Your task to perform on an android device: create a new album in the google photos Image 0: 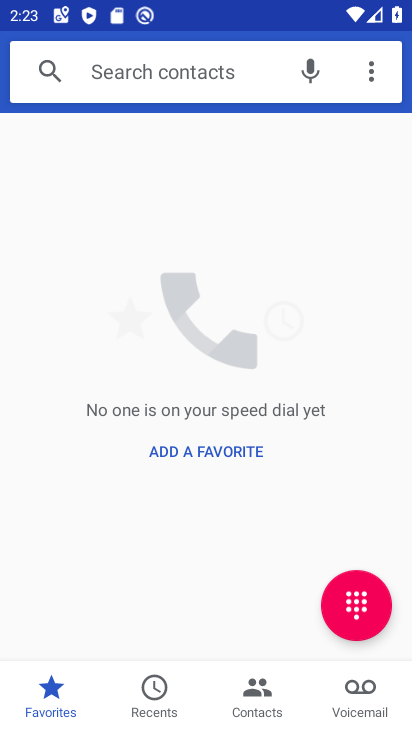
Step 0: press home button
Your task to perform on an android device: create a new album in the google photos Image 1: 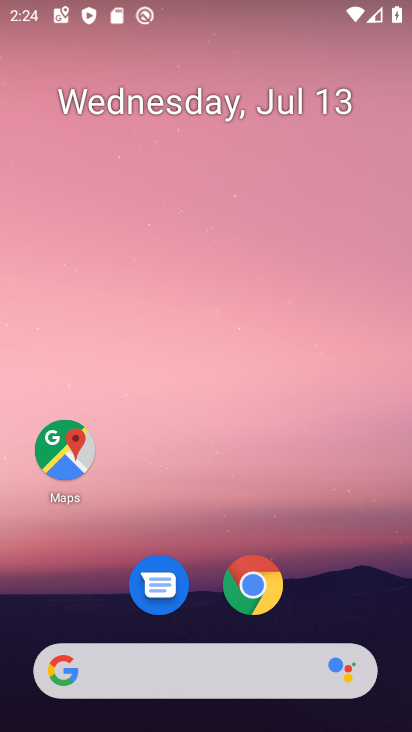
Step 1: drag from (115, 686) to (277, 124)
Your task to perform on an android device: create a new album in the google photos Image 2: 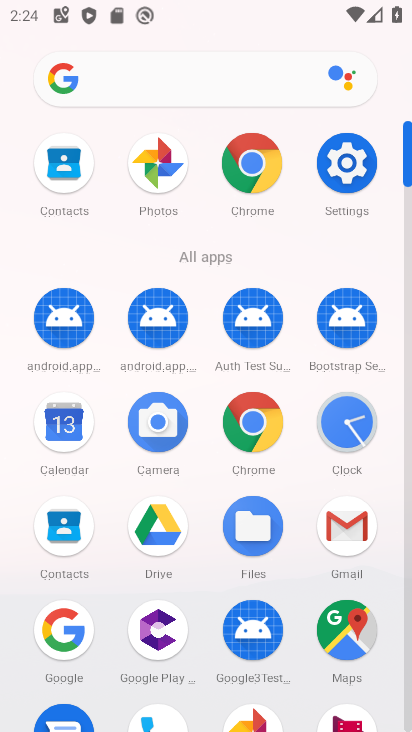
Step 2: drag from (208, 661) to (326, 141)
Your task to perform on an android device: create a new album in the google photos Image 3: 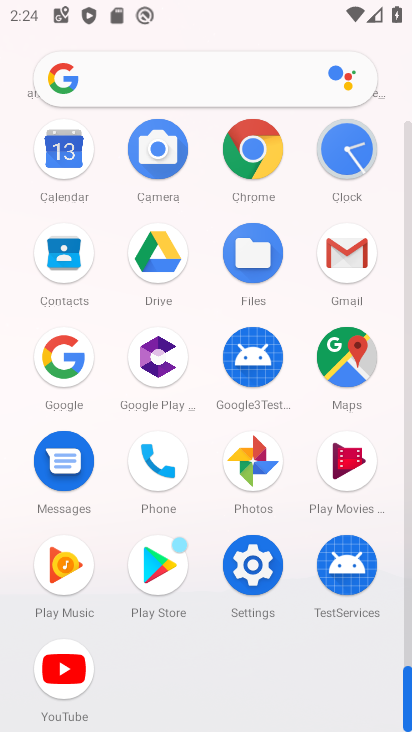
Step 3: click (257, 455)
Your task to perform on an android device: create a new album in the google photos Image 4: 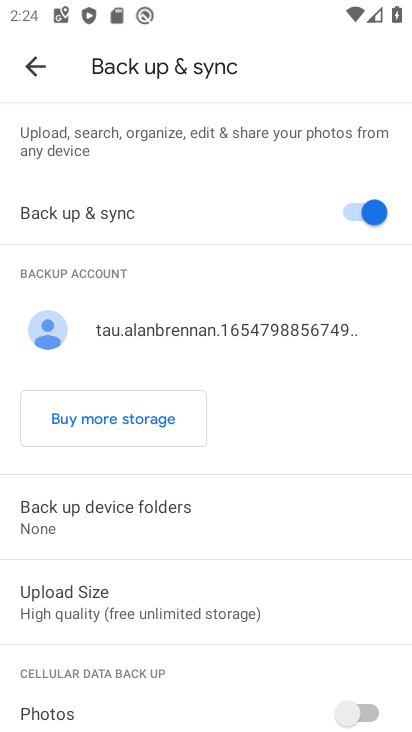
Step 4: click (33, 65)
Your task to perform on an android device: create a new album in the google photos Image 5: 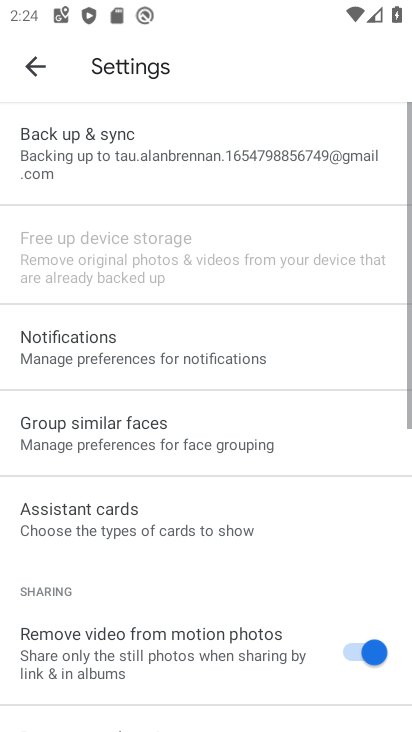
Step 5: click (33, 65)
Your task to perform on an android device: create a new album in the google photos Image 6: 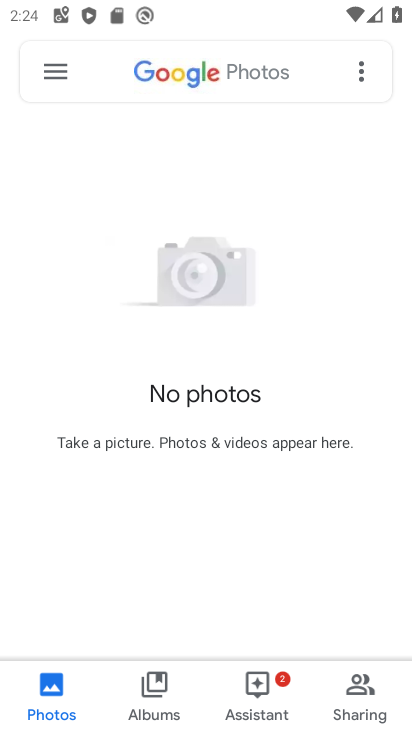
Step 6: click (161, 702)
Your task to perform on an android device: create a new album in the google photos Image 7: 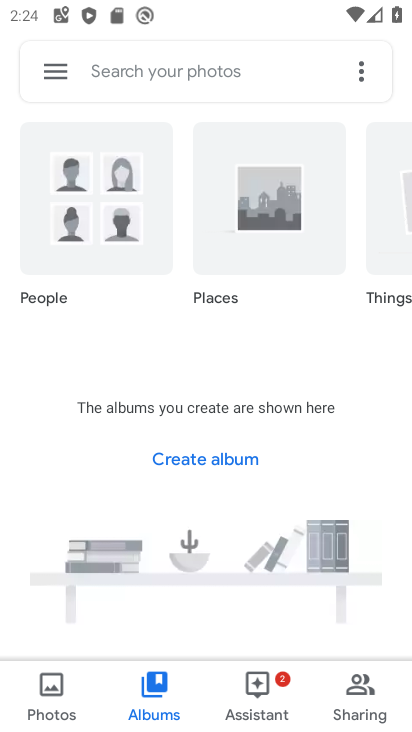
Step 7: click (233, 462)
Your task to perform on an android device: create a new album in the google photos Image 8: 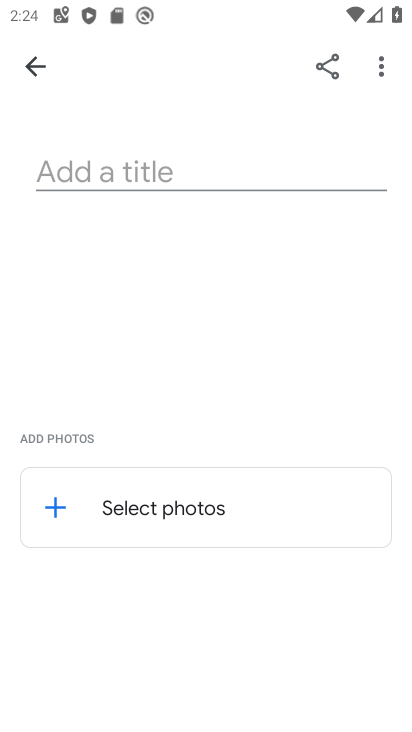
Step 8: click (151, 505)
Your task to perform on an android device: create a new album in the google photos Image 9: 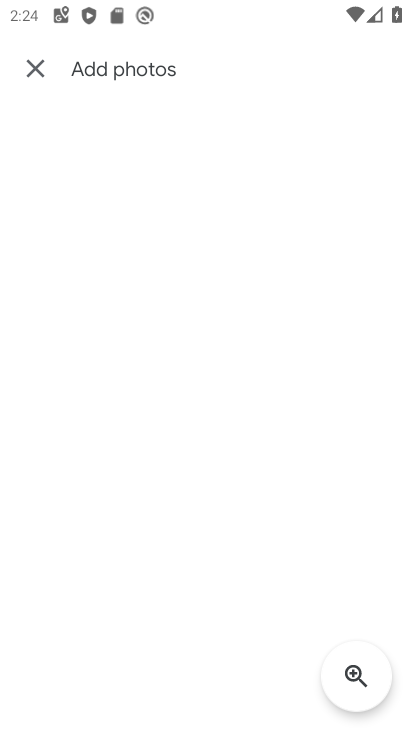
Step 9: task complete